Your task to perform on an android device: Open Youtube and go to "Your channel" Image 0: 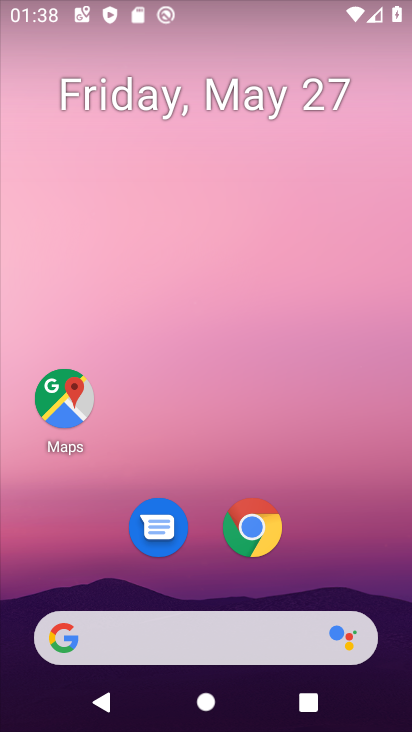
Step 0: drag from (194, 569) to (233, 199)
Your task to perform on an android device: Open Youtube and go to "Your channel" Image 1: 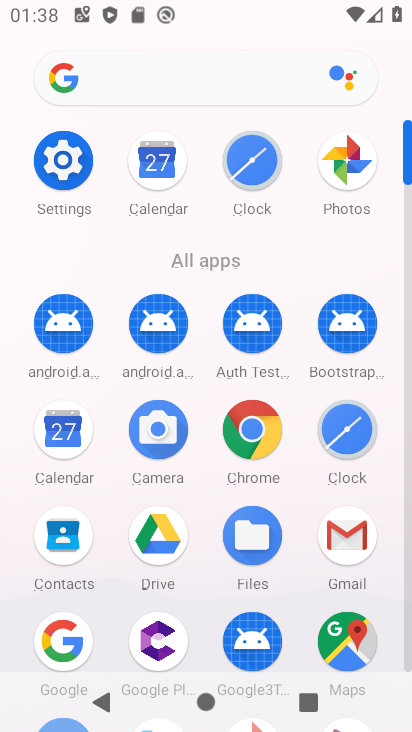
Step 1: drag from (210, 621) to (259, 250)
Your task to perform on an android device: Open Youtube and go to "Your channel" Image 2: 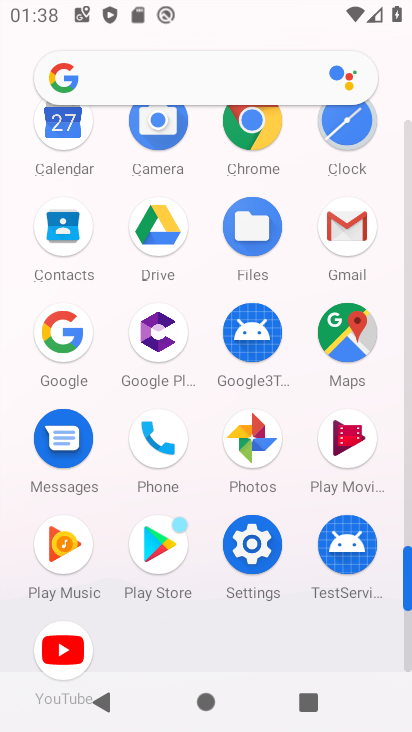
Step 2: click (61, 649)
Your task to perform on an android device: Open Youtube and go to "Your channel" Image 3: 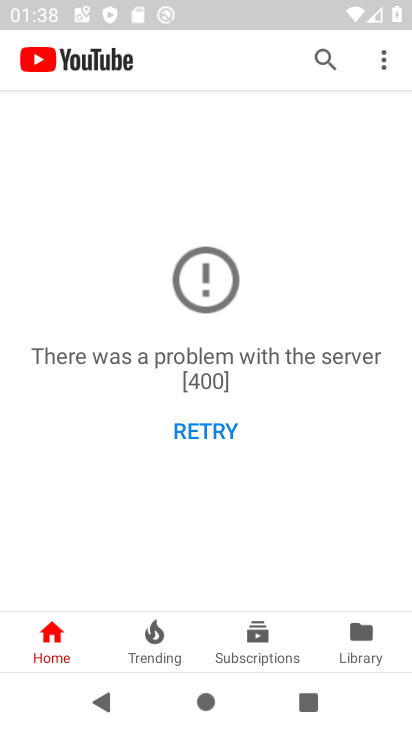
Step 3: click (386, 60)
Your task to perform on an android device: Open Youtube and go to "Your channel" Image 4: 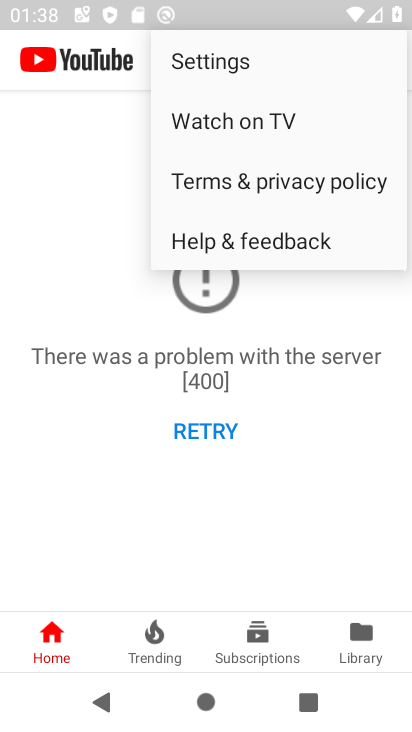
Step 4: click (360, 651)
Your task to perform on an android device: Open Youtube and go to "Your channel" Image 5: 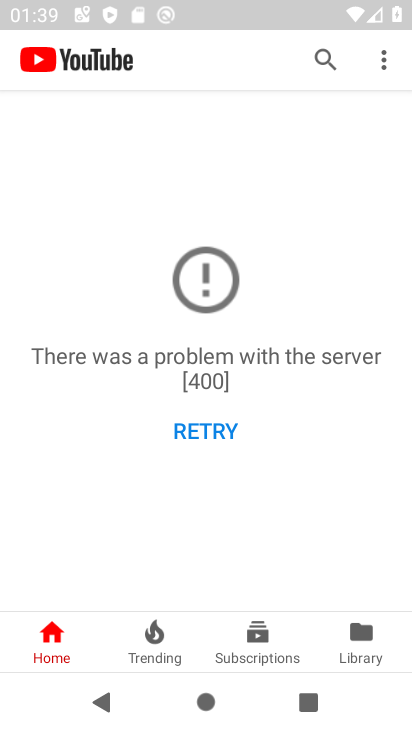
Step 5: task complete